Your task to perform on an android device: Go to ESPN.com Image 0: 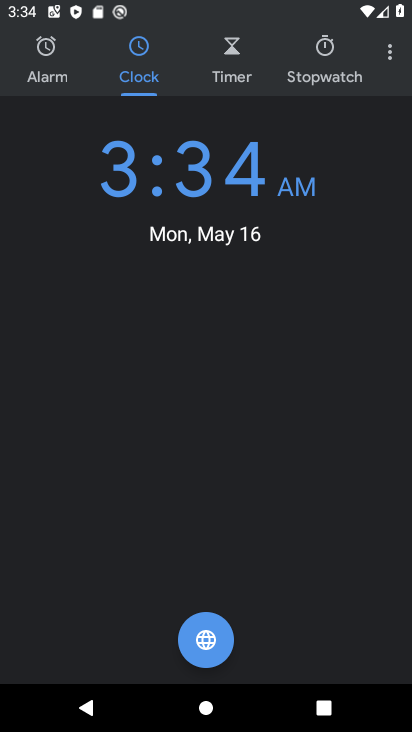
Step 0: press back button
Your task to perform on an android device: Go to ESPN.com Image 1: 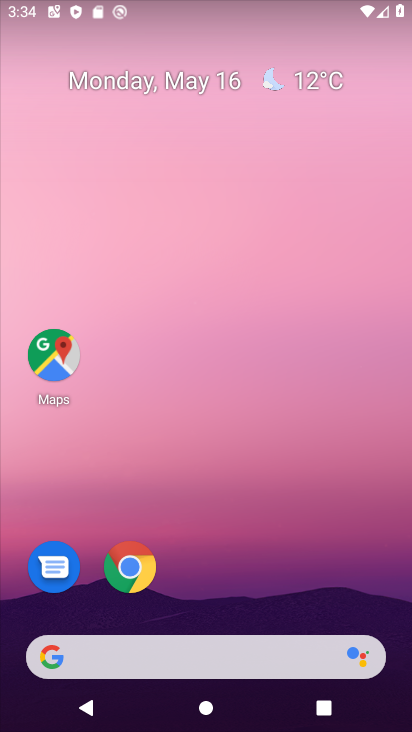
Step 1: drag from (231, 578) to (176, 36)
Your task to perform on an android device: Go to ESPN.com Image 2: 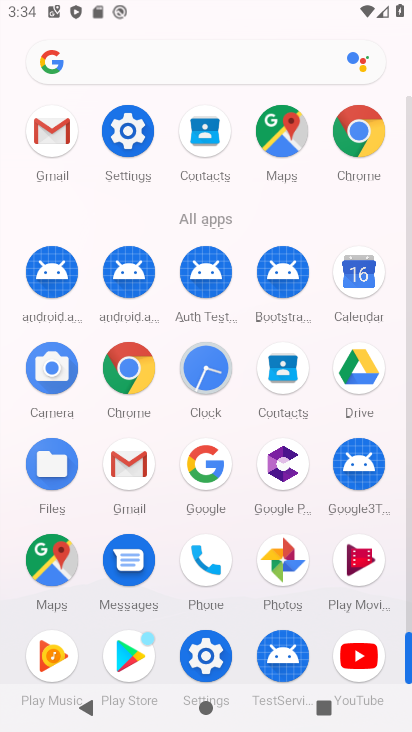
Step 2: click (363, 124)
Your task to perform on an android device: Go to ESPN.com Image 3: 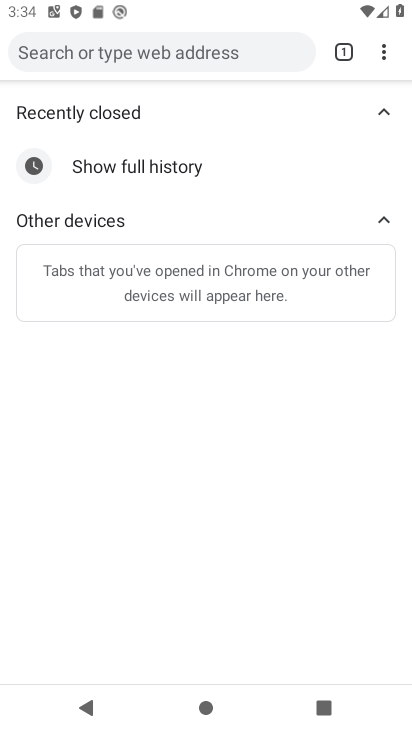
Step 3: click (156, 43)
Your task to perform on an android device: Go to ESPN.com Image 4: 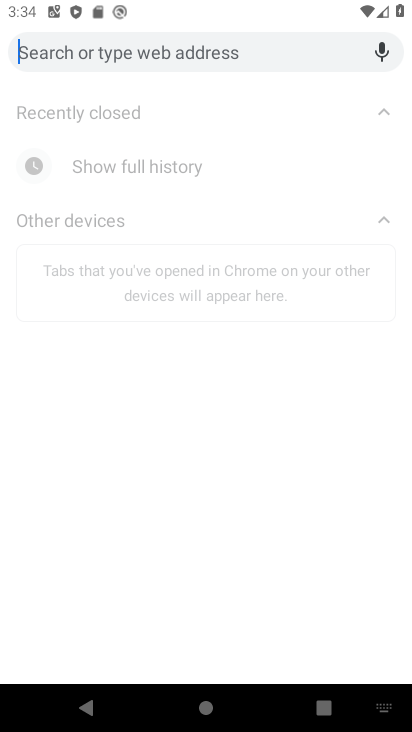
Step 4: type "ESPN.com"
Your task to perform on an android device: Go to ESPN.com Image 5: 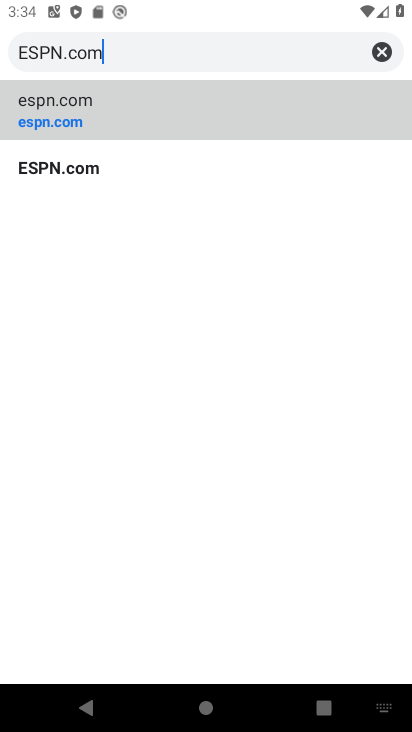
Step 5: type ""
Your task to perform on an android device: Go to ESPN.com Image 6: 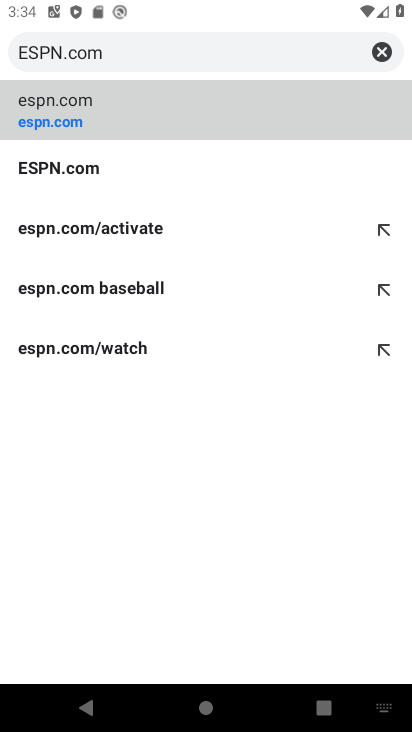
Step 6: click (102, 104)
Your task to perform on an android device: Go to ESPN.com Image 7: 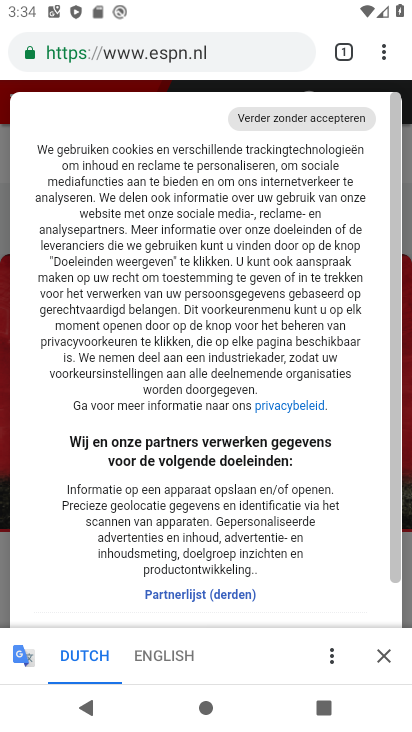
Step 7: drag from (340, 501) to (300, 155)
Your task to perform on an android device: Go to ESPN.com Image 8: 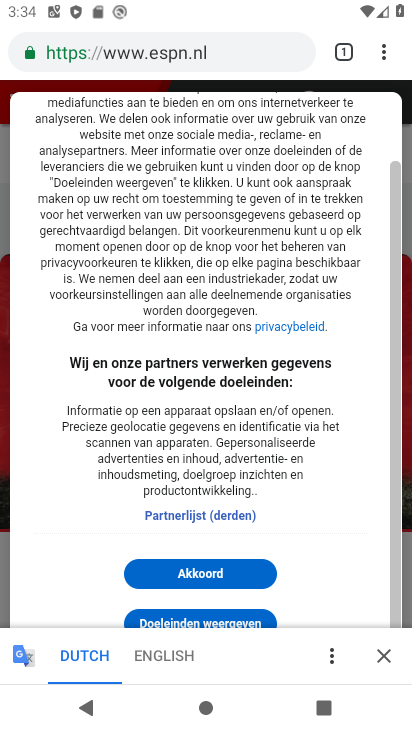
Step 8: click (194, 574)
Your task to perform on an android device: Go to ESPN.com Image 9: 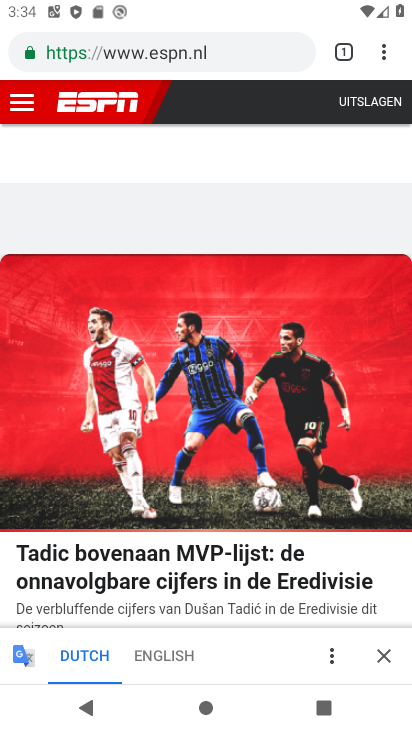
Step 9: task complete